Your task to perform on an android device: visit the assistant section in the google photos Image 0: 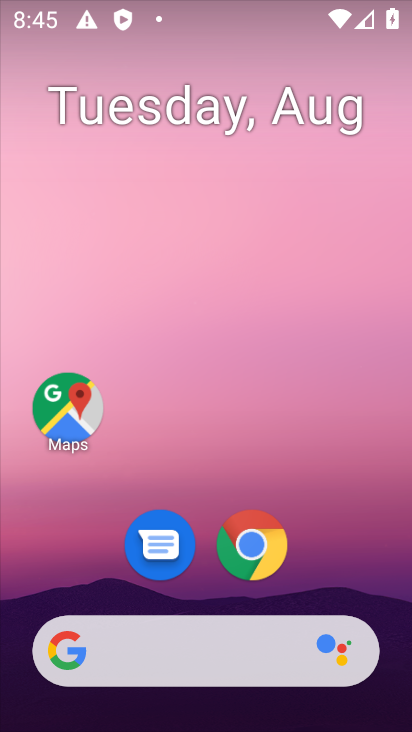
Step 0: drag from (27, 520) to (173, 135)
Your task to perform on an android device: visit the assistant section in the google photos Image 1: 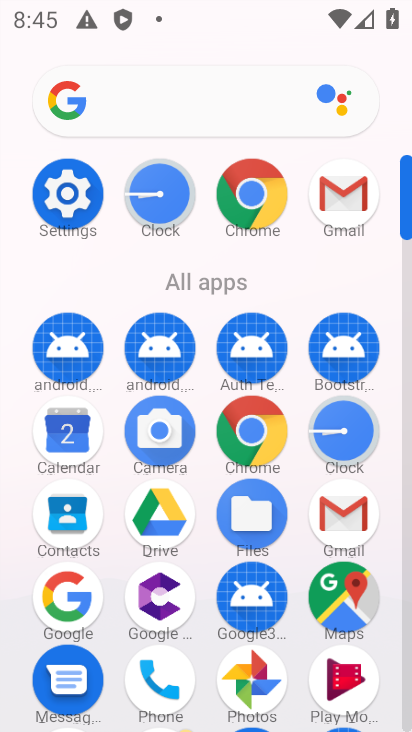
Step 1: click (240, 670)
Your task to perform on an android device: visit the assistant section in the google photos Image 2: 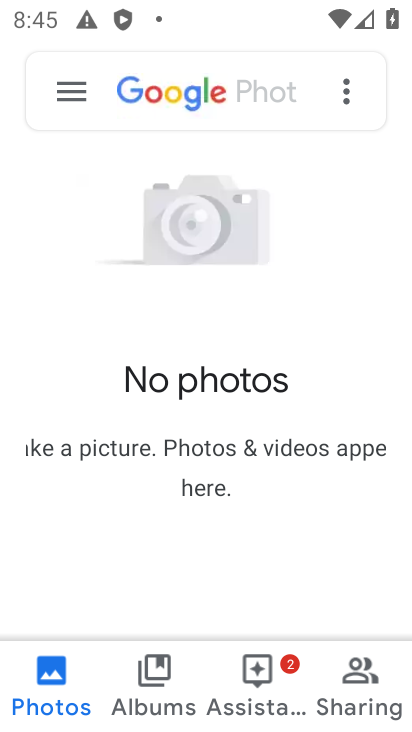
Step 2: click (252, 676)
Your task to perform on an android device: visit the assistant section in the google photos Image 3: 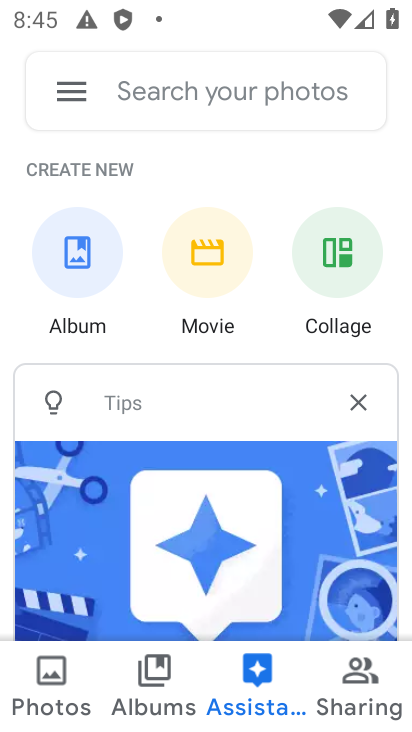
Step 3: click (361, 408)
Your task to perform on an android device: visit the assistant section in the google photos Image 4: 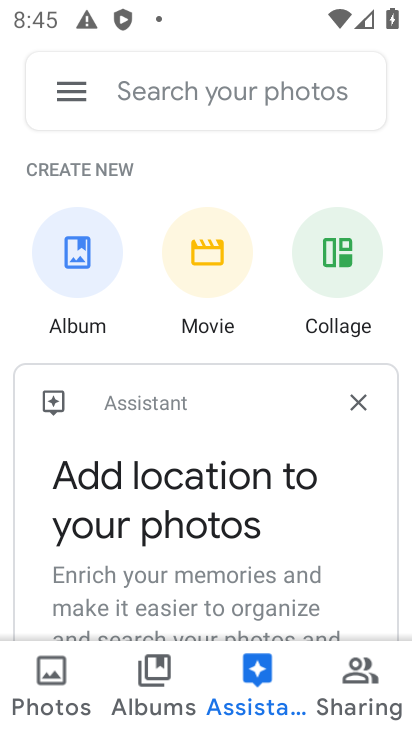
Step 4: task complete